Your task to perform on an android device: turn smart compose on in the gmail app Image 0: 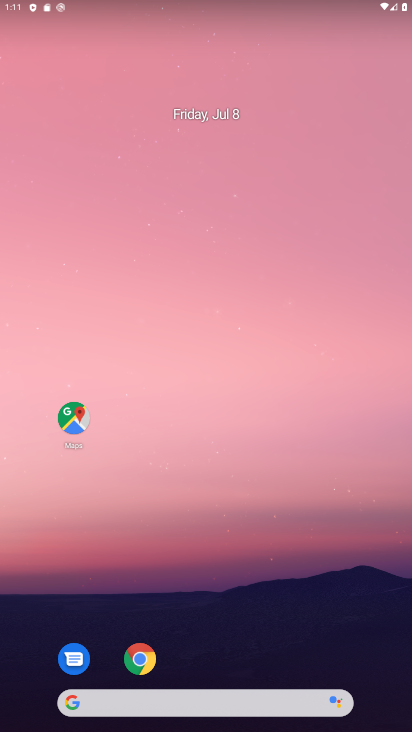
Step 0: drag from (224, 650) to (161, 14)
Your task to perform on an android device: turn smart compose on in the gmail app Image 1: 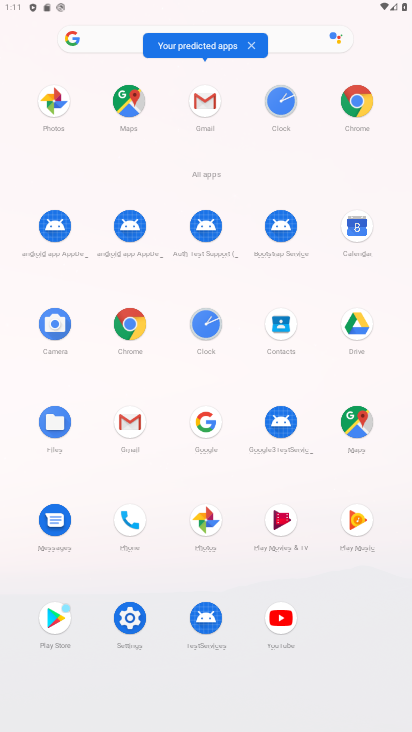
Step 1: click (206, 100)
Your task to perform on an android device: turn smart compose on in the gmail app Image 2: 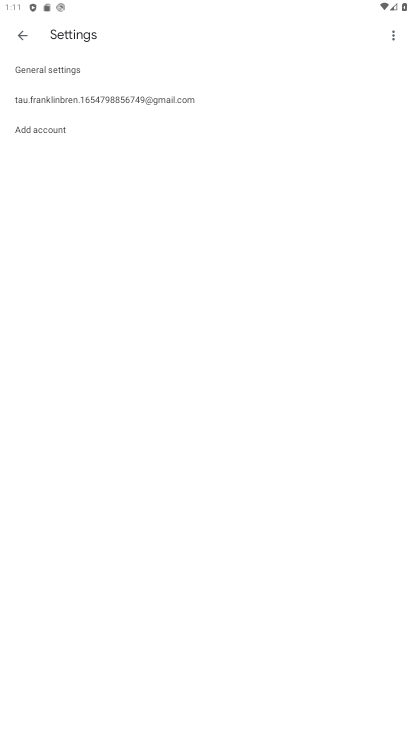
Step 2: click (124, 97)
Your task to perform on an android device: turn smart compose on in the gmail app Image 3: 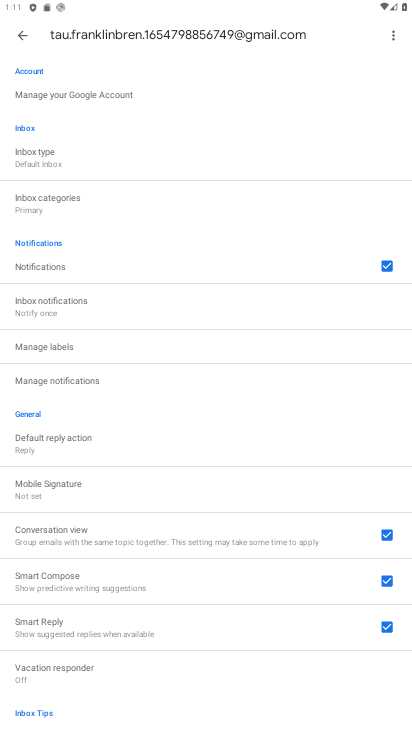
Step 3: task complete